Your task to perform on an android device: turn off notifications settings in the gmail app Image 0: 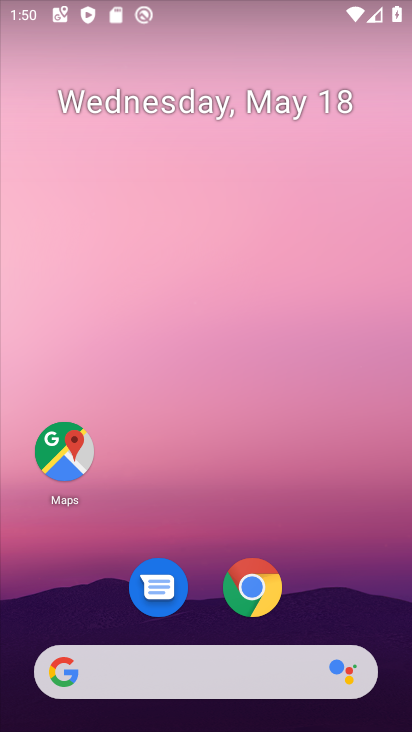
Step 0: drag from (342, 630) to (371, 14)
Your task to perform on an android device: turn off notifications settings in the gmail app Image 1: 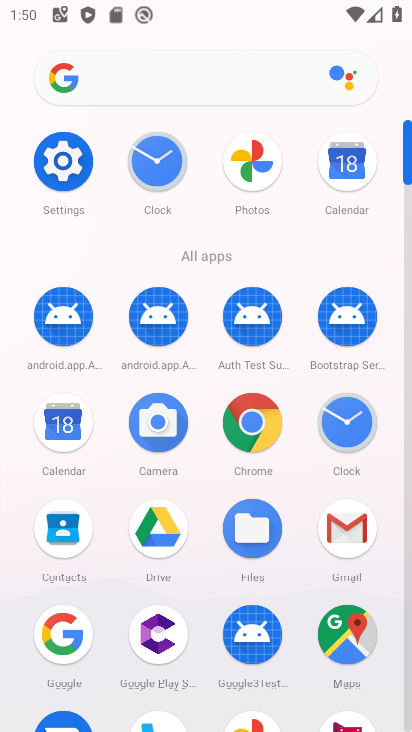
Step 1: click (338, 529)
Your task to perform on an android device: turn off notifications settings in the gmail app Image 2: 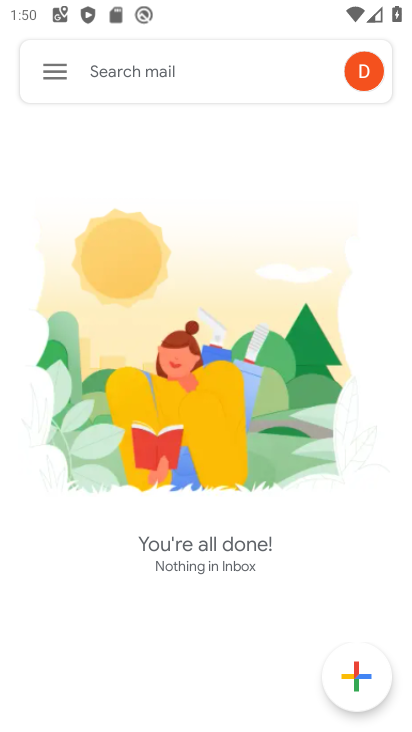
Step 2: click (54, 74)
Your task to perform on an android device: turn off notifications settings in the gmail app Image 3: 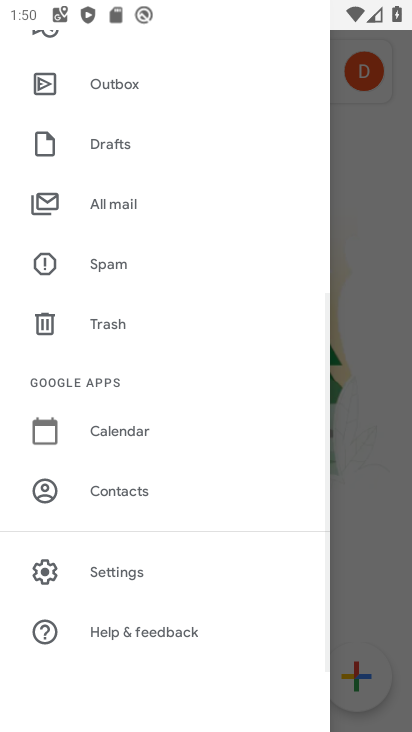
Step 3: click (90, 572)
Your task to perform on an android device: turn off notifications settings in the gmail app Image 4: 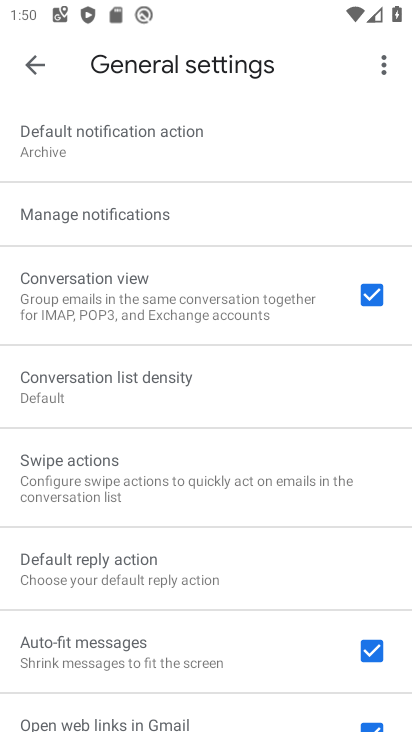
Step 4: click (74, 215)
Your task to perform on an android device: turn off notifications settings in the gmail app Image 5: 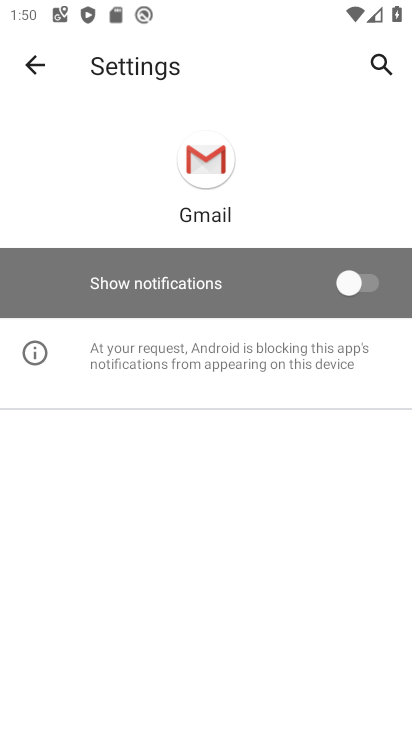
Step 5: task complete